Your task to perform on an android device: turn off location history Image 0: 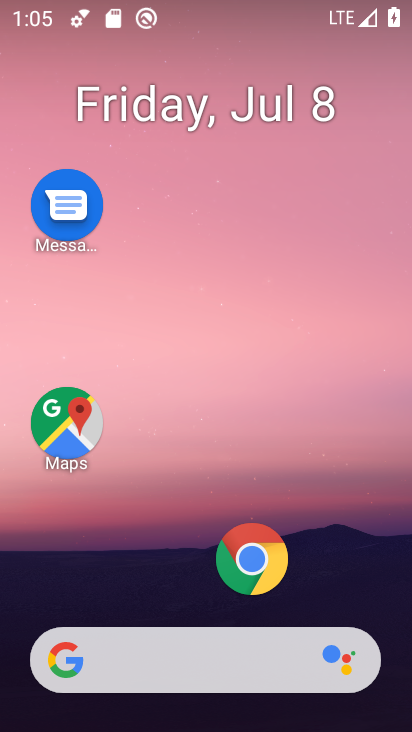
Step 0: drag from (214, 623) to (163, 45)
Your task to perform on an android device: turn off location history Image 1: 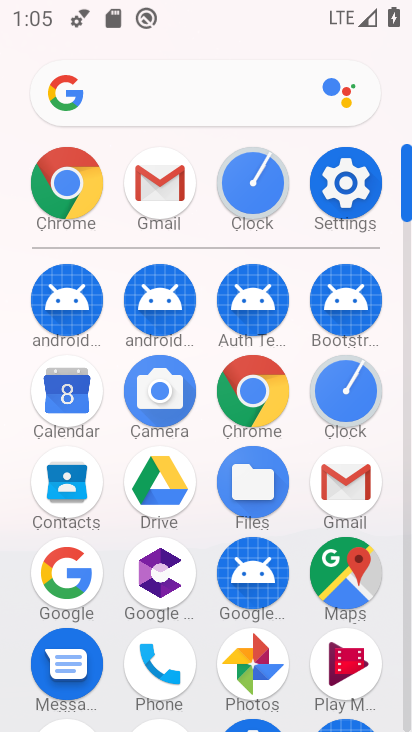
Step 1: click (345, 180)
Your task to perform on an android device: turn off location history Image 2: 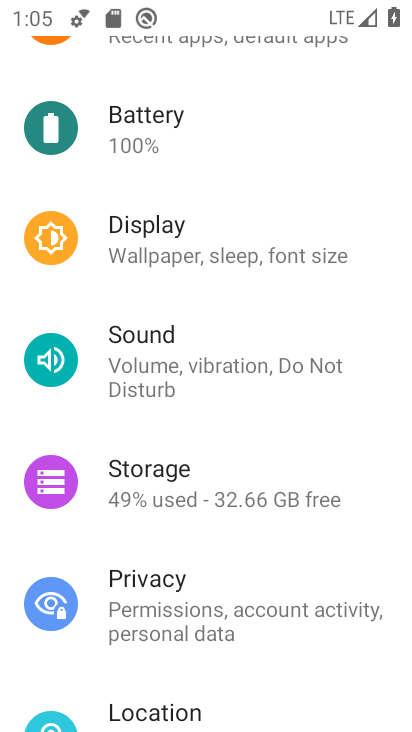
Step 2: click (201, 690)
Your task to perform on an android device: turn off location history Image 3: 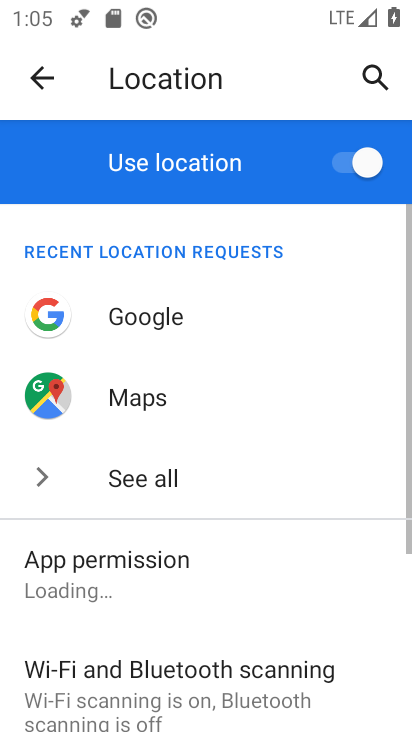
Step 3: drag from (231, 650) to (160, 134)
Your task to perform on an android device: turn off location history Image 4: 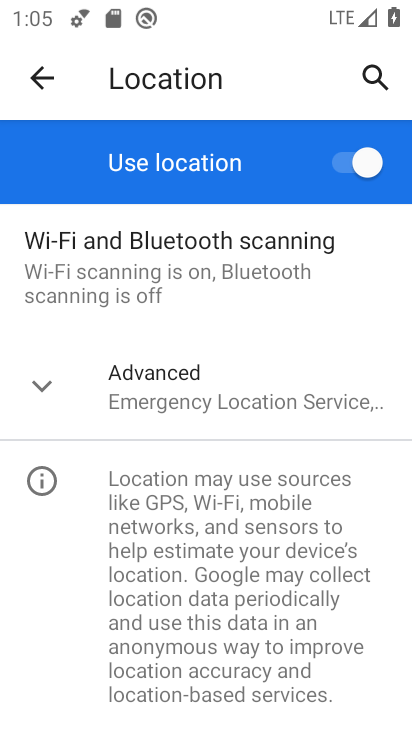
Step 4: click (166, 370)
Your task to perform on an android device: turn off location history Image 5: 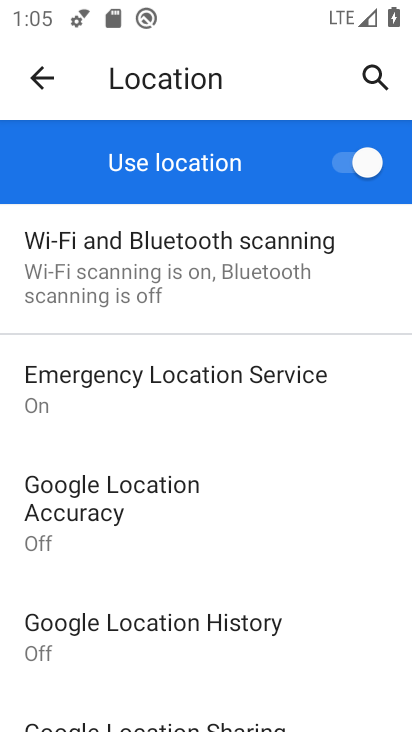
Step 5: click (239, 622)
Your task to perform on an android device: turn off location history Image 6: 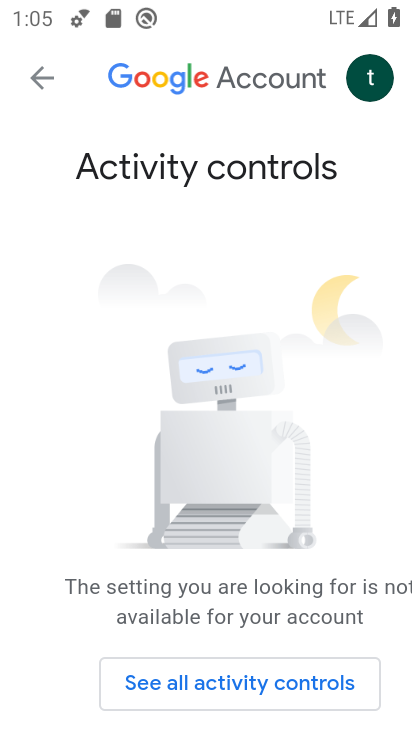
Step 6: drag from (291, 610) to (136, 146)
Your task to perform on an android device: turn off location history Image 7: 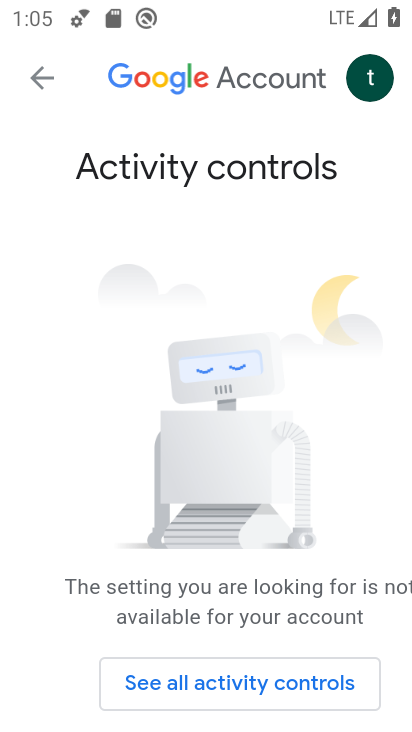
Step 7: drag from (220, 557) to (159, 43)
Your task to perform on an android device: turn off location history Image 8: 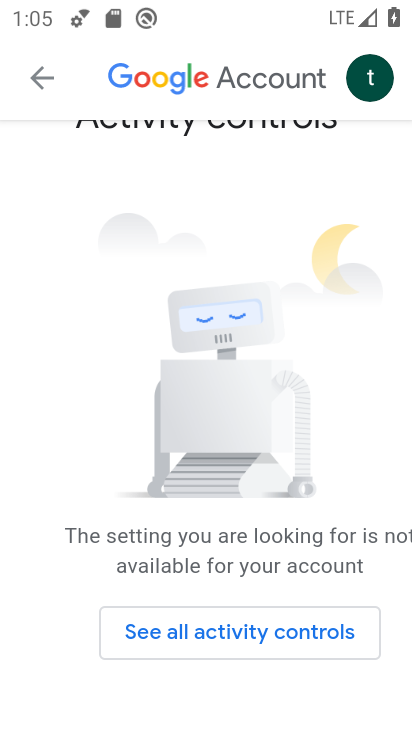
Step 8: drag from (276, 570) to (163, 147)
Your task to perform on an android device: turn off location history Image 9: 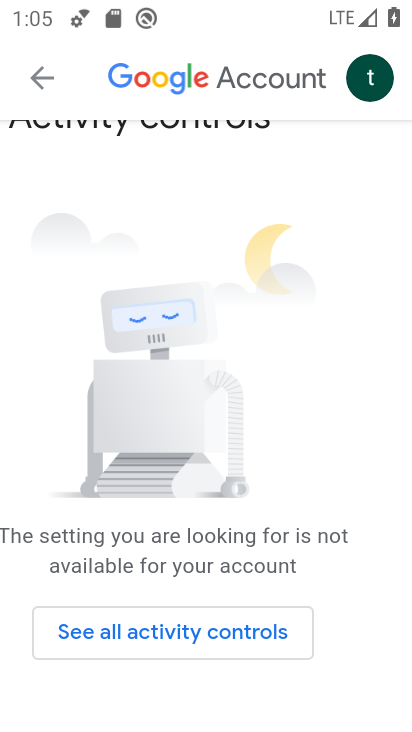
Step 9: drag from (308, 600) to (215, 189)
Your task to perform on an android device: turn off location history Image 10: 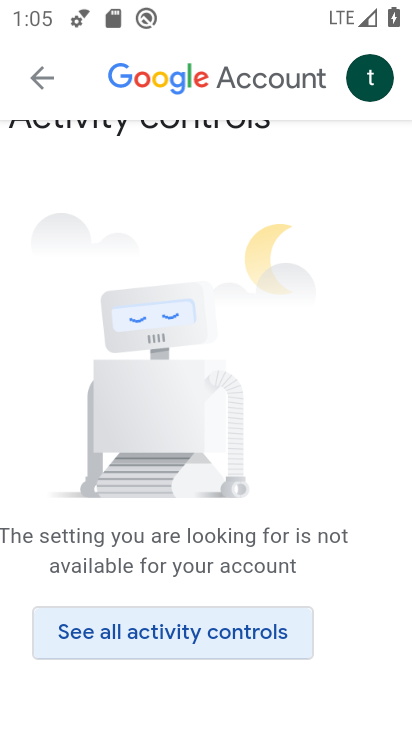
Step 10: click (250, 621)
Your task to perform on an android device: turn off location history Image 11: 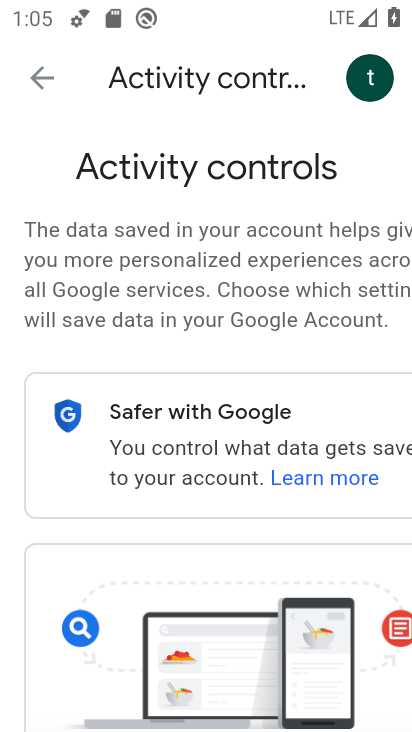
Step 11: drag from (266, 572) to (136, 102)
Your task to perform on an android device: turn off location history Image 12: 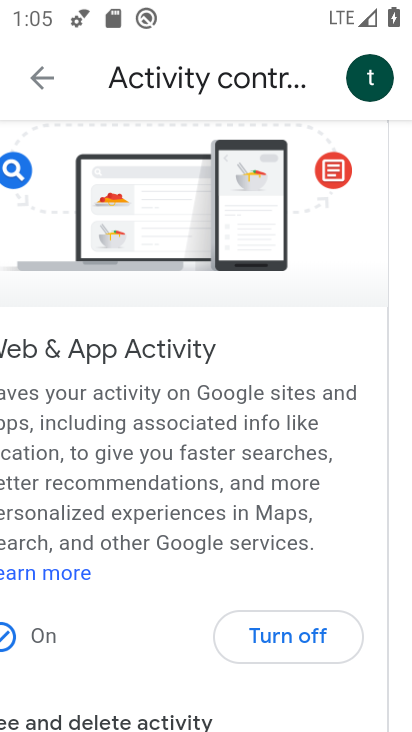
Step 12: click (312, 630)
Your task to perform on an android device: turn off location history Image 13: 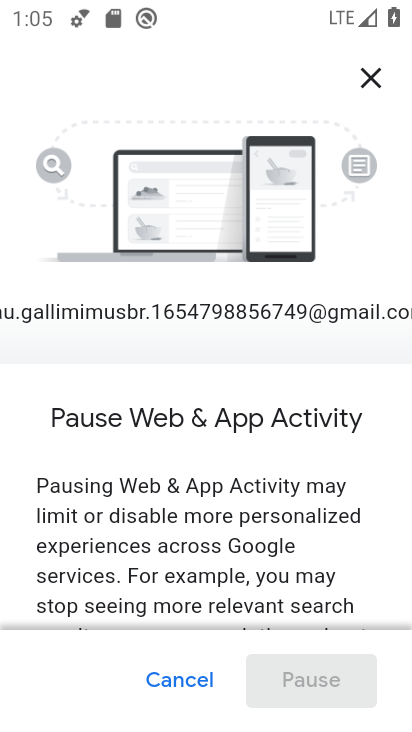
Step 13: drag from (288, 595) to (146, 46)
Your task to perform on an android device: turn off location history Image 14: 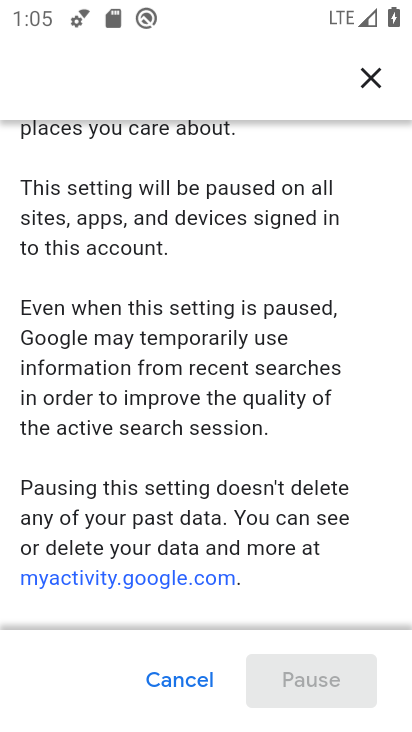
Step 14: drag from (232, 474) to (150, 1)
Your task to perform on an android device: turn off location history Image 15: 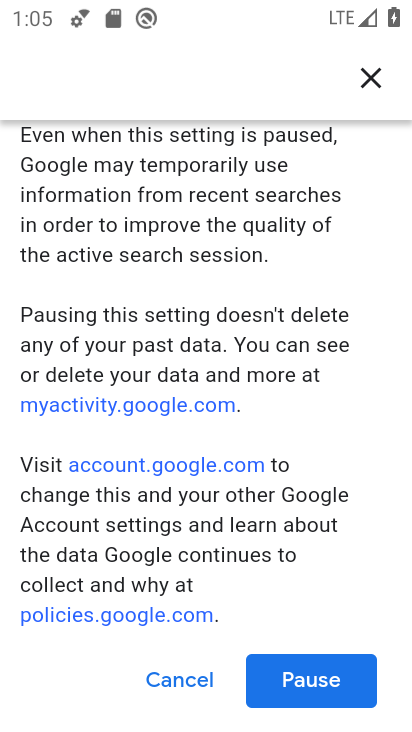
Step 15: click (308, 678)
Your task to perform on an android device: turn off location history Image 16: 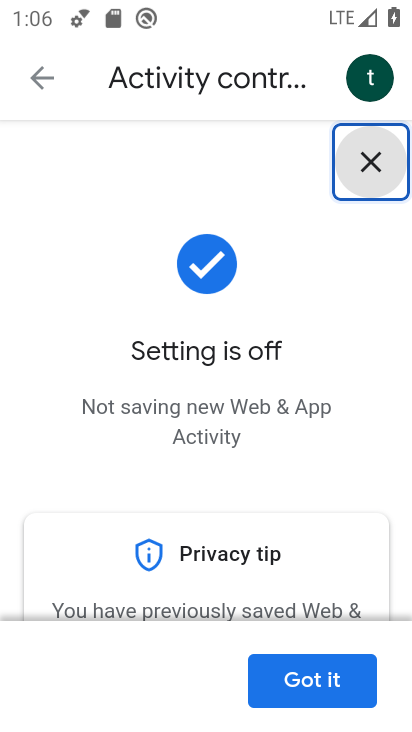
Step 16: click (343, 671)
Your task to perform on an android device: turn off location history Image 17: 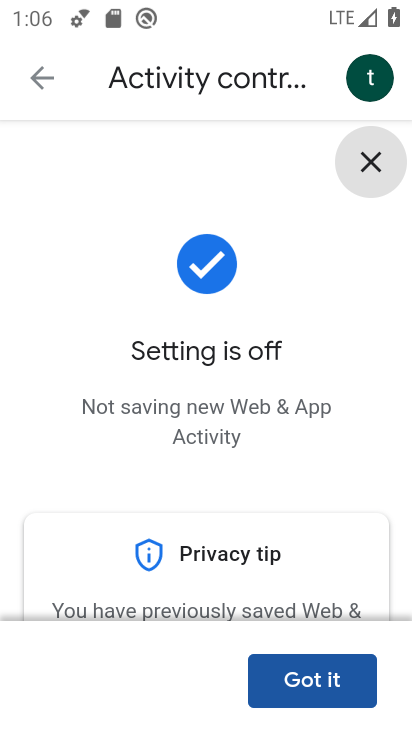
Step 17: task complete